Your task to perform on an android device: Do I have any events today? Image 0: 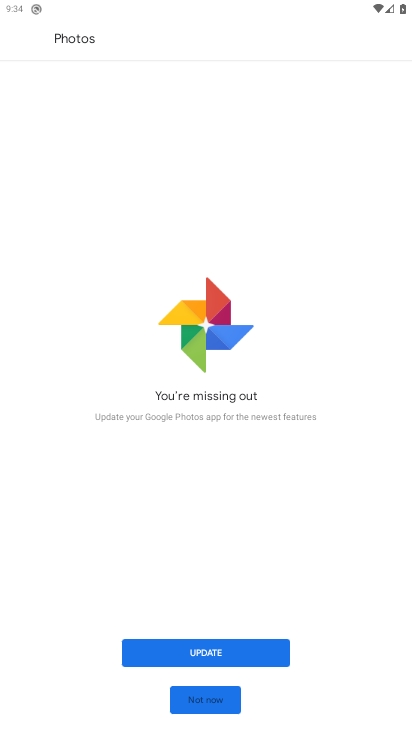
Step 0: press home button
Your task to perform on an android device: Do I have any events today? Image 1: 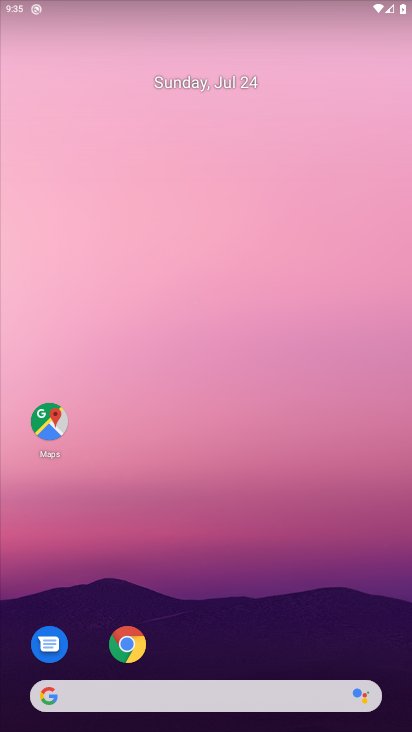
Step 1: drag from (276, 634) to (333, 56)
Your task to perform on an android device: Do I have any events today? Image 2: 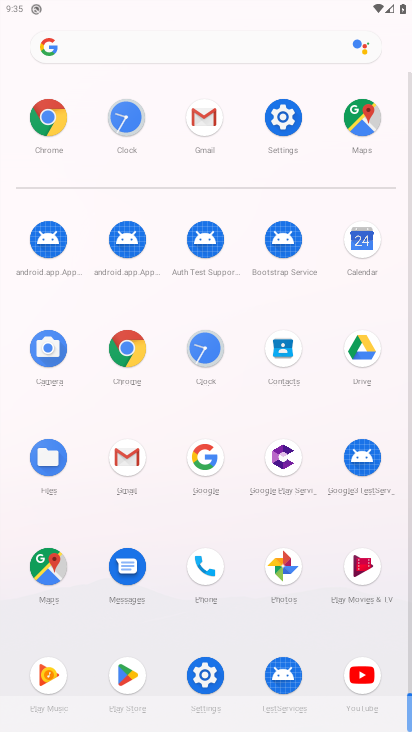
Step 2: click (371, 249)
Your task to perform on an android device: Do I have any events today? Image 3: 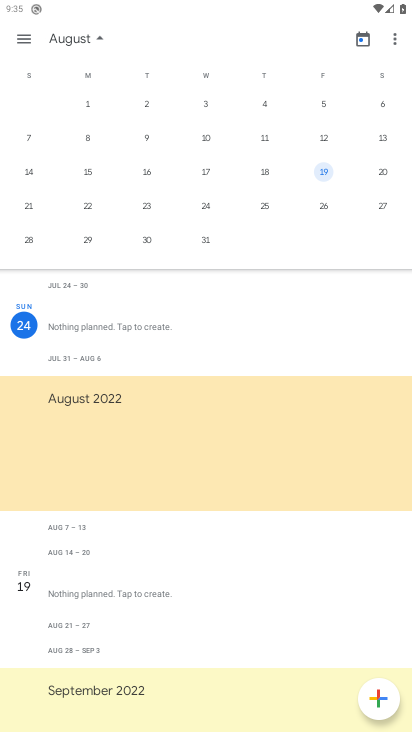
Step 3: drag from (72, 137) to (407, 137)
Your task to perform on an android device: Do I have any events today? Image 4: 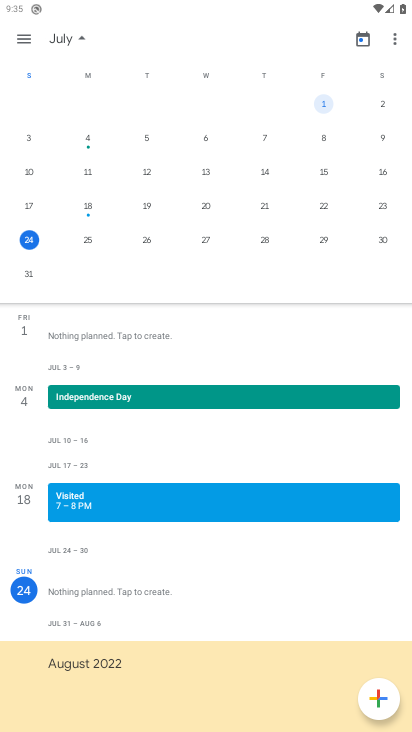
Step 4: click (80, 233)
Your task to perform on an android device: Do I have any events today? Image 5: 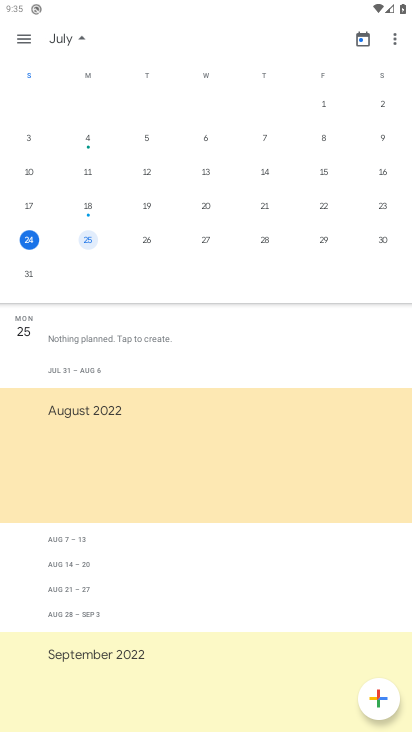
Step 5: task complete